Your task to perform on an android device: Open eBay Image 0: 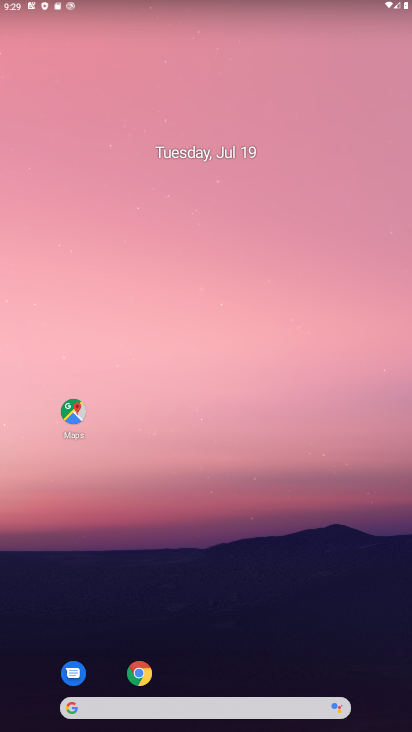
Step 0: click (136, 683)
Your task to perform on an android device: Open eBay Image 1: 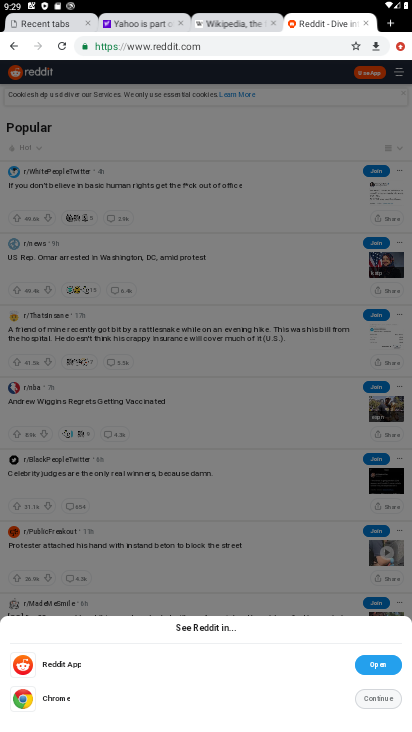
Step 1: click (390, 28)
Your task to perform on an android device: Open eBay Image 2: 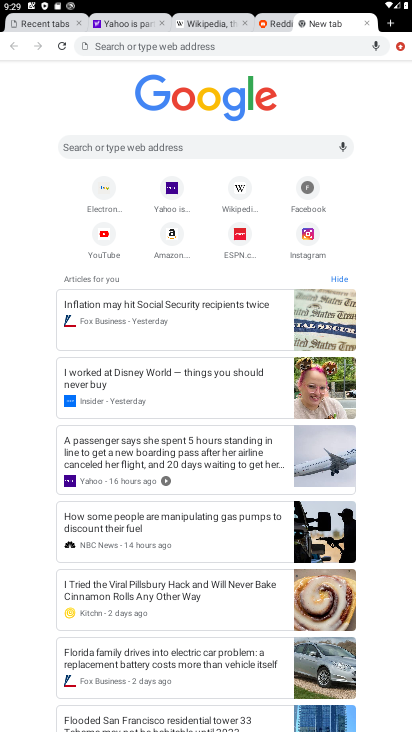
Step 2: click (138, 151)
Your task to perform on an android device: Open eBay Image 3: 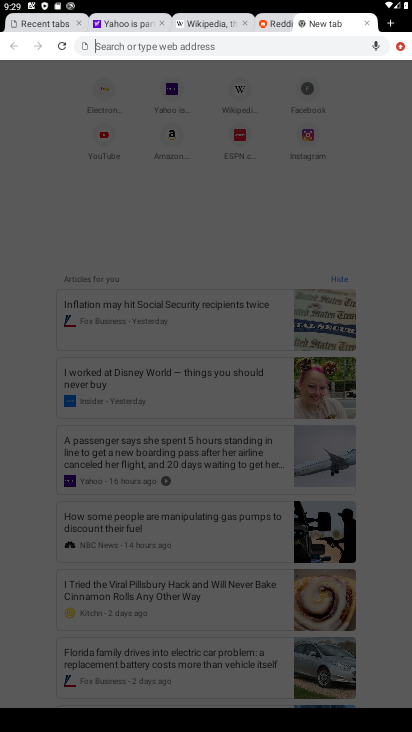
Step 3: type "eBay"
Your task to perform on an android device: Open eBay Image 4: 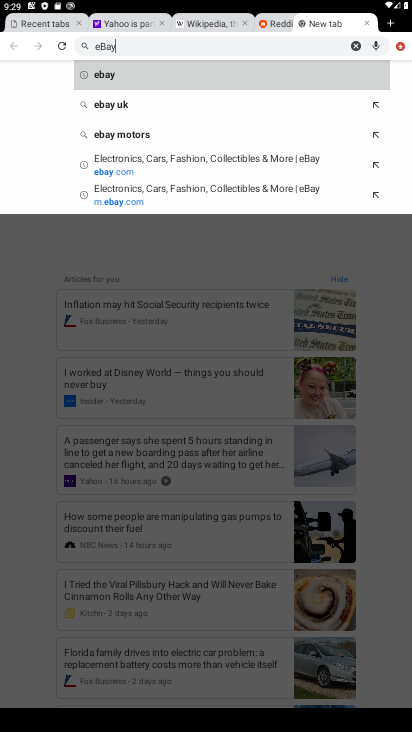
Step 4: click (158, 81)
Your task to perform on an android device: Open eBay Image 5: 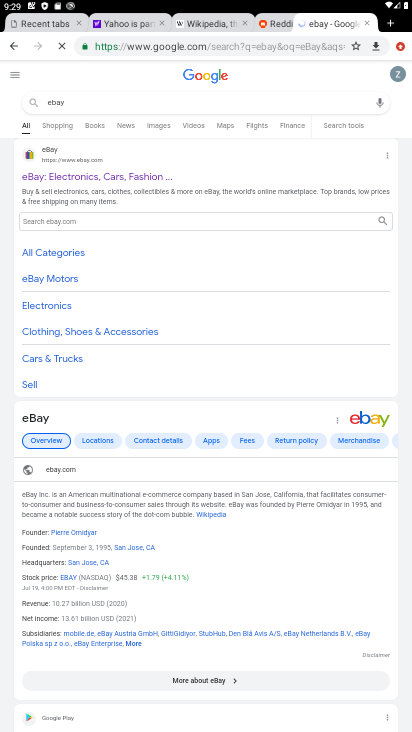
Step 5: click (65, 171)
Your task to perform on an android device: Open eBay Image 6: 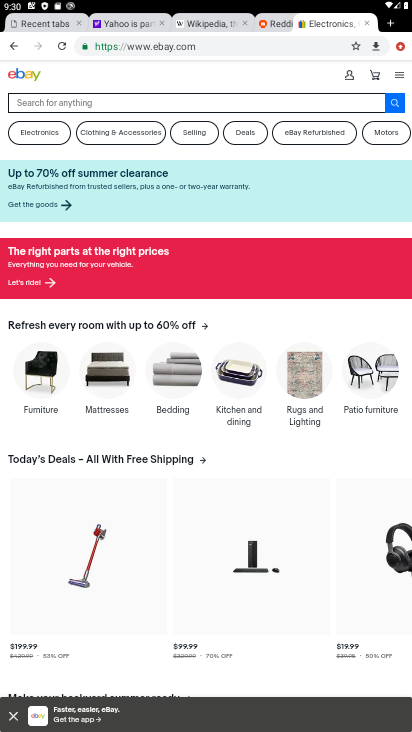
Step 6: task complete